Your task to perform on an android device: Open Android settings Image 0: 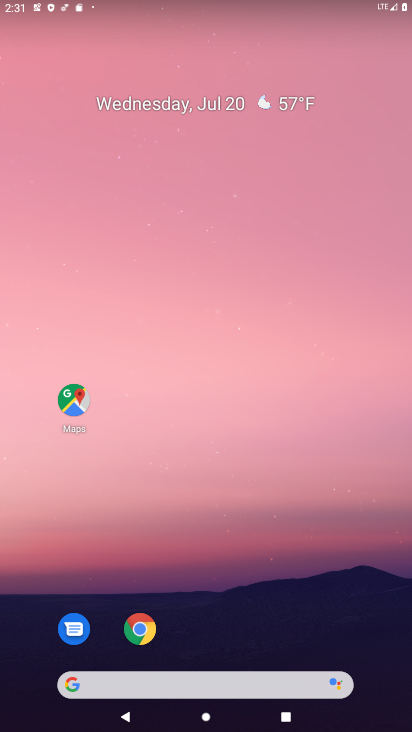
Step 0: drag from (204, 674) to (214, 184)
Your task to perform on an android device: Open Android settings Image 1: 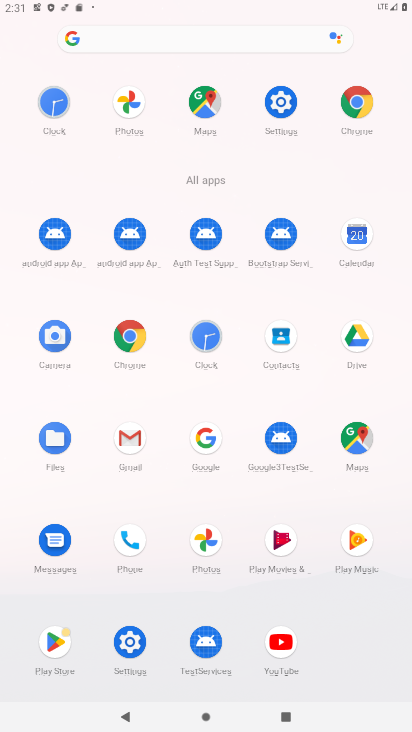
Step 1: click (123, 645)
Your task to perform on an android device: Open Android settings Image 2: 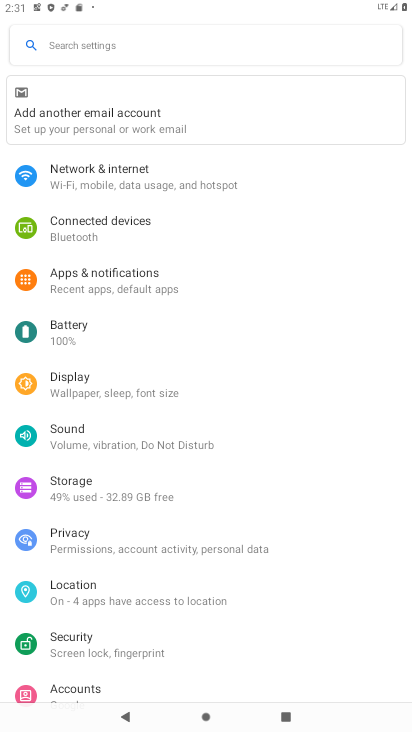
Step 2: task complete